Your task to perform on an android device: Go to sound settings Image 0: 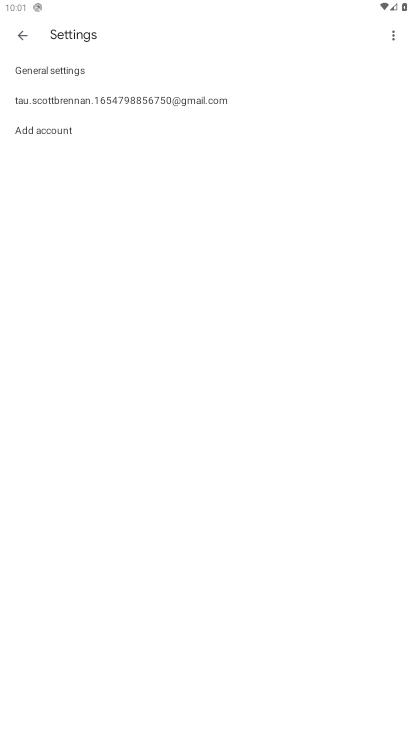
Step 0: press home button
Your task to perform on an android device: Go to sound settings Image 1: 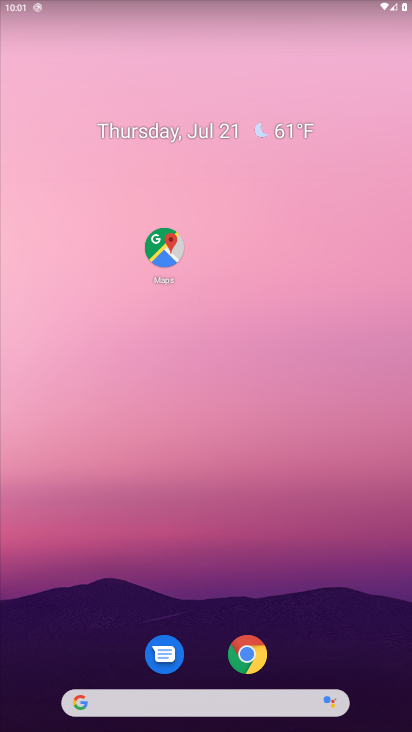
Step 1: drag from (39, 709) to (390, 5)
Your task to perform on an android device: Go to sound settings Image 2: 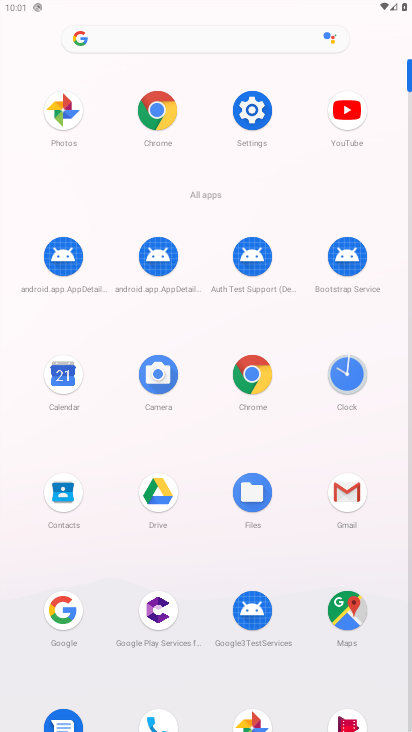
Step 2: click (246, 107)
Your task to perform on an android device: Go to sound settings Image 3: 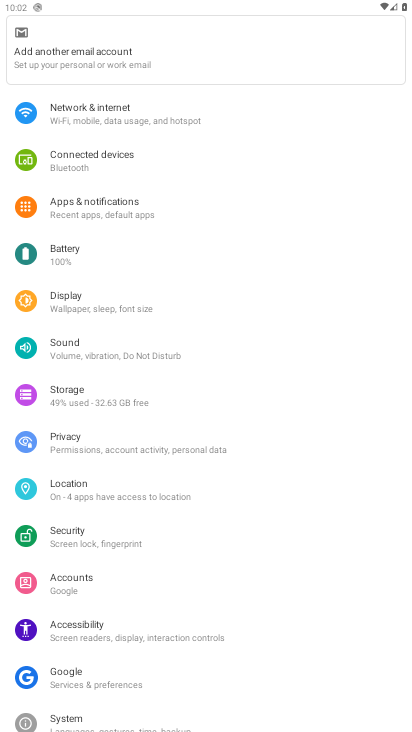
Step 3: click (74, 344)
Your task to perform on an android device: Go to sound settings Image 4: 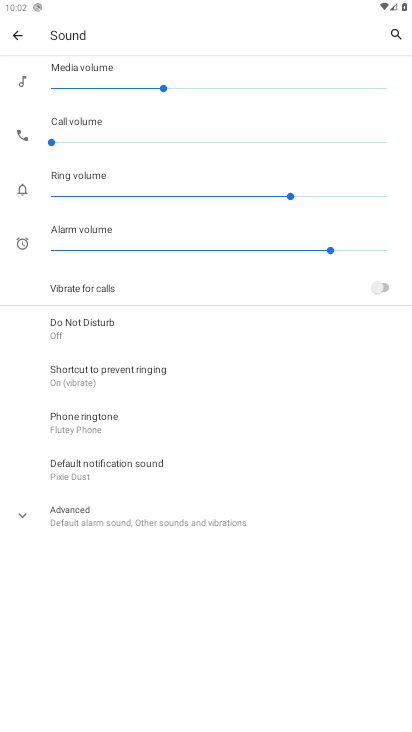
Step 4: task complete